Your task to perform on an android device: Search for Italian restaurants on Maps Image 0: 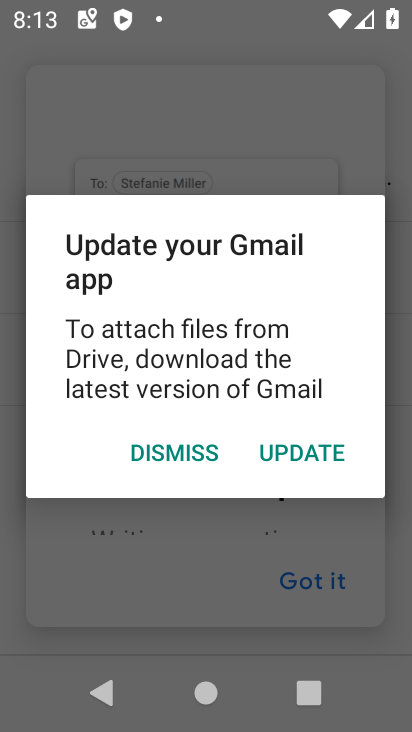
Step 0: press home button
Your task to perform on an android device: Search for Italian restaurants on Maps Image 1: 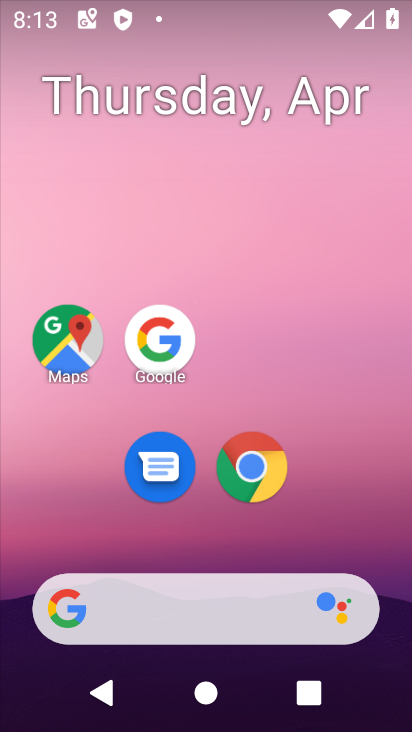
Step 1: click (27, 329)
Your task to perform on an android device: Search for Italian restaurants on Maps Image 2: 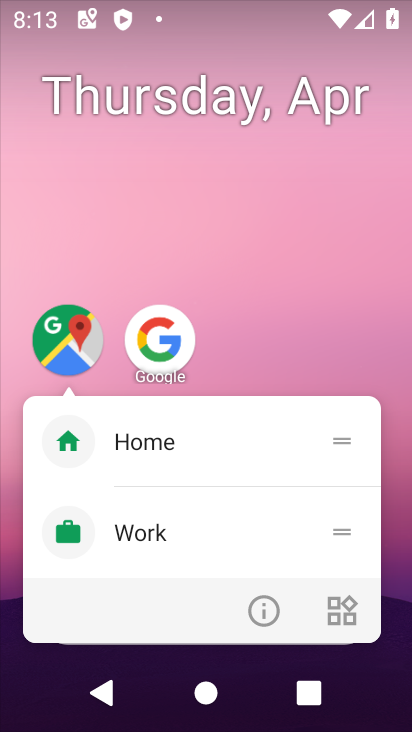
Step 2: click (47, 339)
Your task to perform on an android device: Search for Italian restaurants on Maps Image 3: 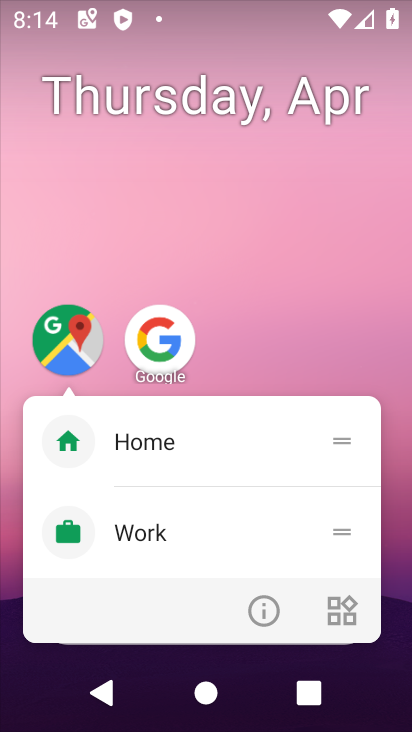
Step 3: click (47, 339)
Your task to perform on an android device: Search for Italian restaurants on Maps Image 4: 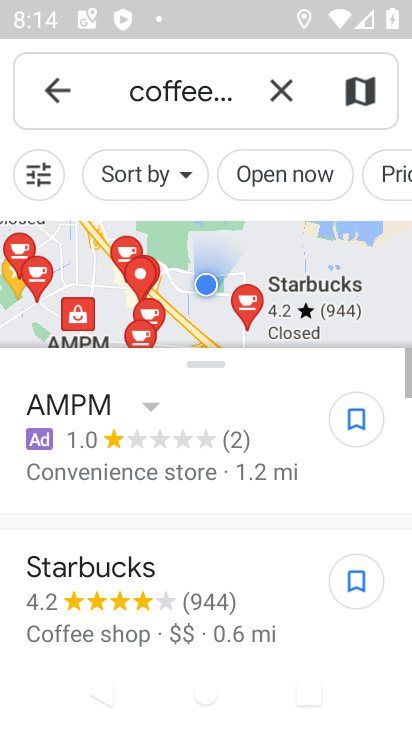
Step 4: click (281, 100)
Your task to perform on an android device: Search for Italian restaurants on Maps Image 5: 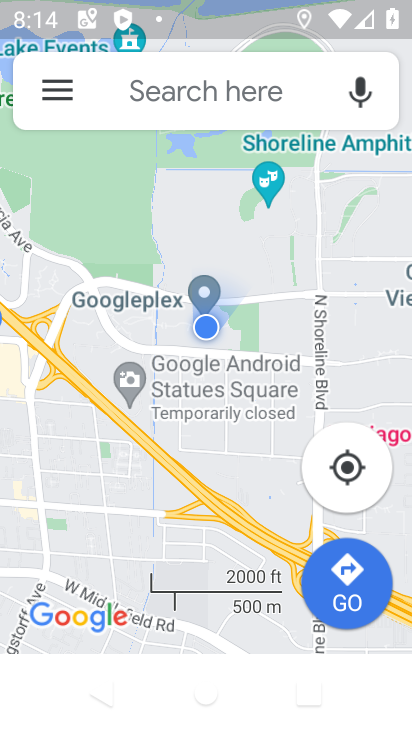
Step 5: click (202, 97)
Your task to perform on an android device: Search for Italian restaurants on Maps Image 6: 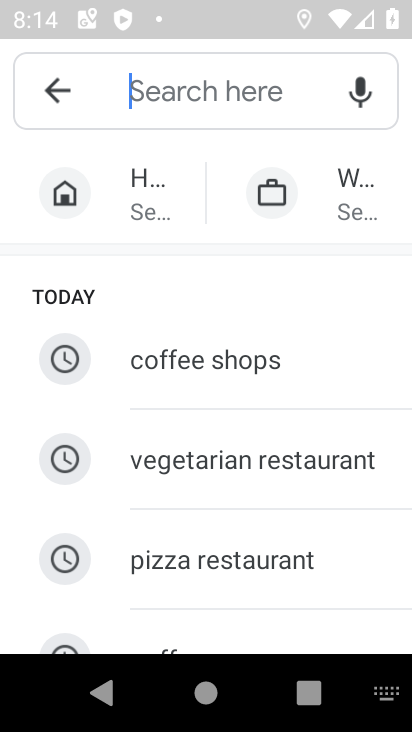
Step 6: type "italian restaurants"
Your task to perform on an android device: Search for Italian restaurants on Maps Image 7: 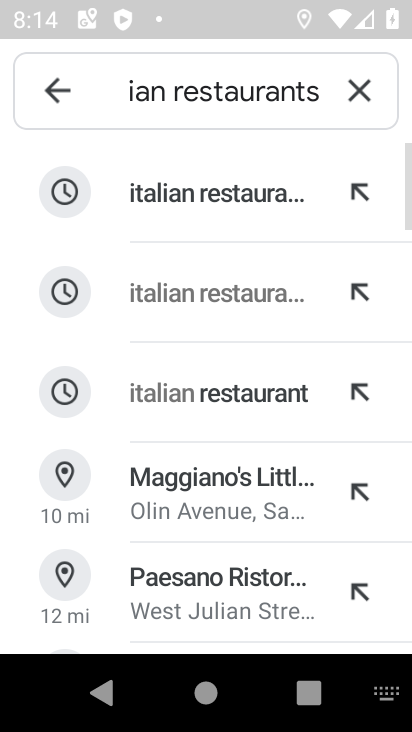
Step 7: click (198, 220)
Your task to perform on an android device: Search for Italian restaurants on Maps Image 8: 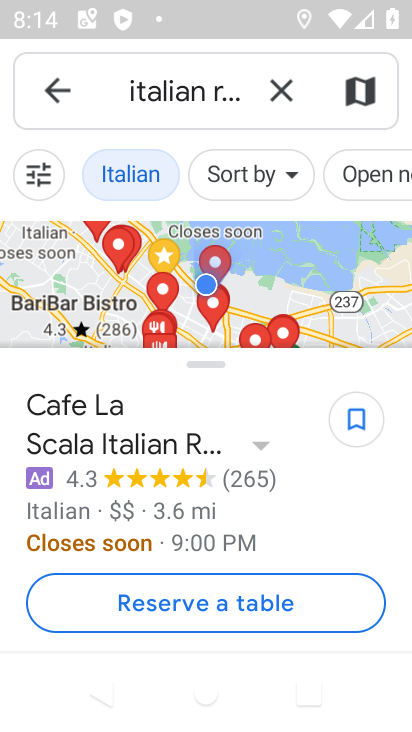
Step 8: task complete